Your task to perform on an android device: toggle notification dots Image 0: 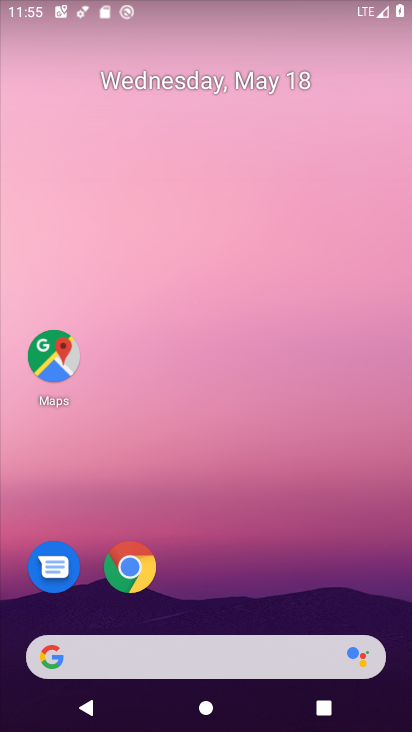
Step 0: drag from (305, 561) to (289, 89)
Your task to perform on an android device: toggle notification dots Image 1: 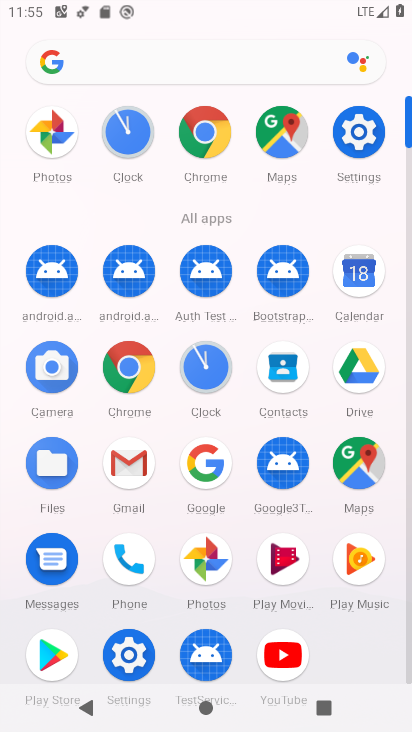
Step 1: click (371, 125)
Your task to perform on an android device: toggle notification dots Image 2: 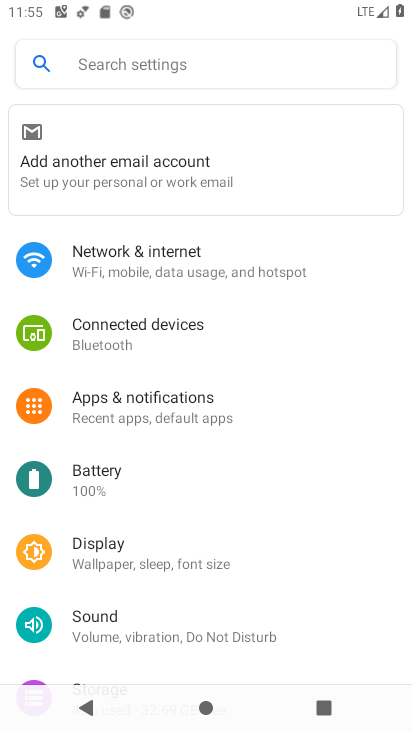
Step 2: click (175, 425)
Your task to perform on an android device: toggle notification dots Image 3: 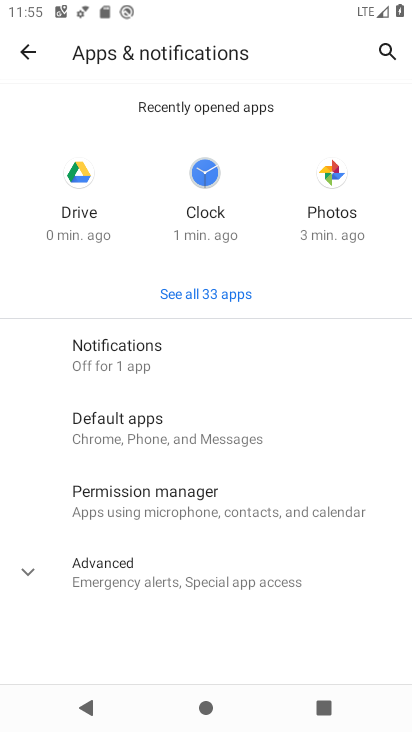
Step 3: click (129, 356)
Your task to perform on an android device: toggle notification dots Image 4: 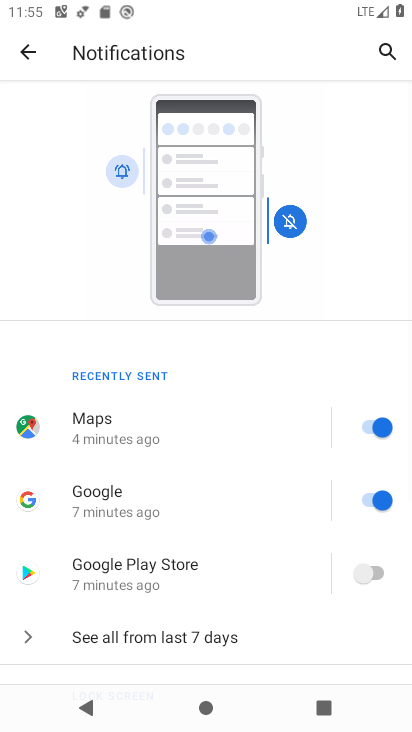
Step 4: drag from (175, 561) to (141, 43)
Your task to perform on an android device: toggle notification dots Image 5: 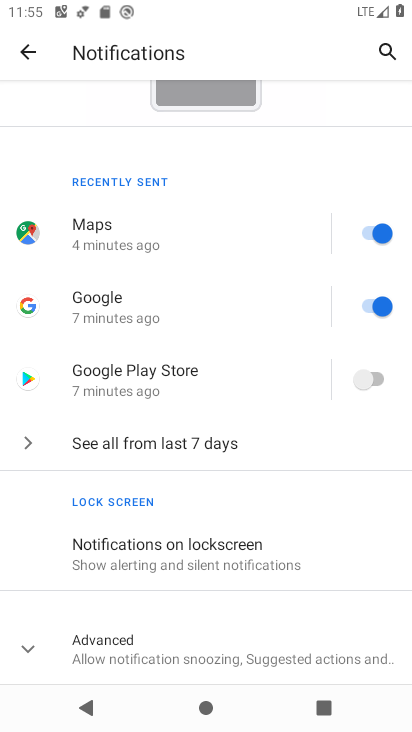
Step 5: click (187, 652)
Your task to perform on an android device: toggle notification dots Image 6: 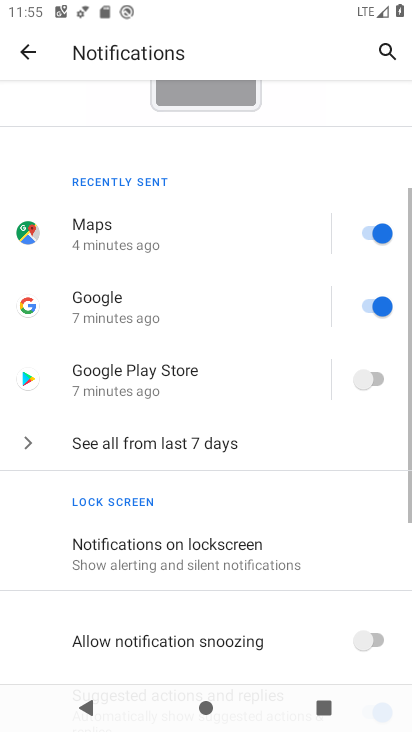
Step 6: drag from (200, 601) to (237, 179)
Your task to perform on an android device: toggle notification dots Image 7: 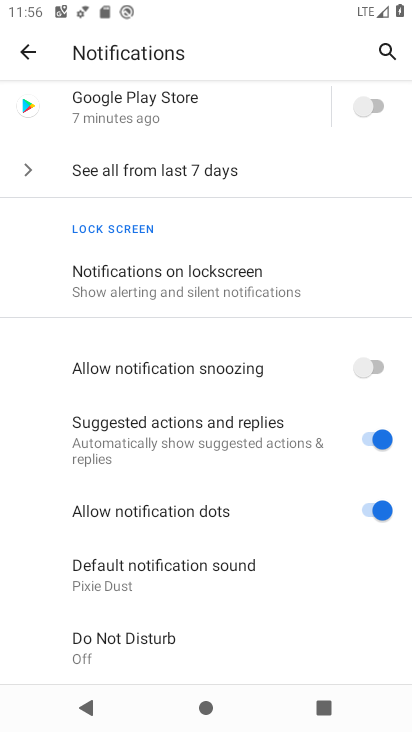
Step 7: click (366, 513)
Your task to perform on an android device: toggle notification dots Image 8: 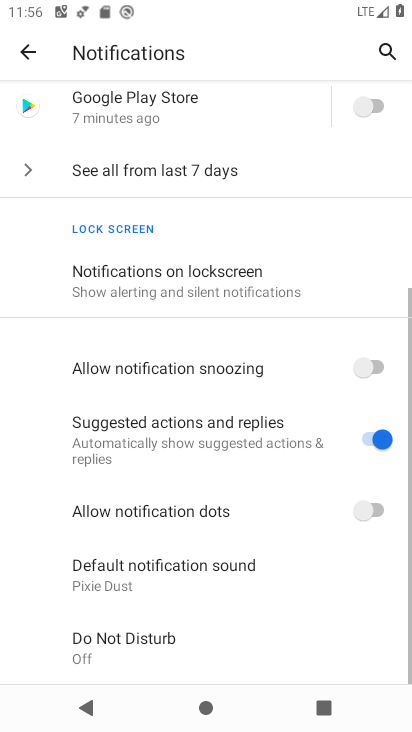
Step 8: task complete